Your task to perform on an android device: toggle data saver in the chrome app Image 0: 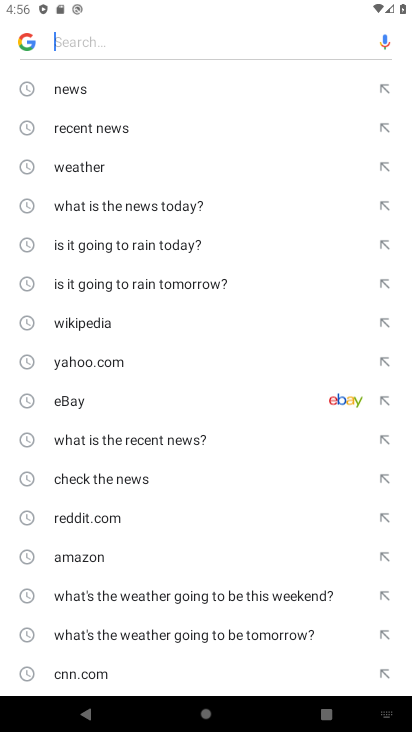
Step 0: press back button
Your task to perform on an android device: toggle data saver in the chrome app Image 1: 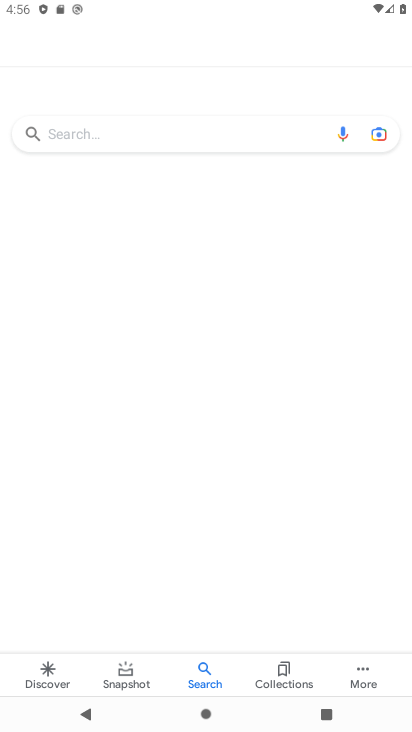
Step 1: press back button
Your task to perform on an android device: toggle data saver in the chrome app Image 2: 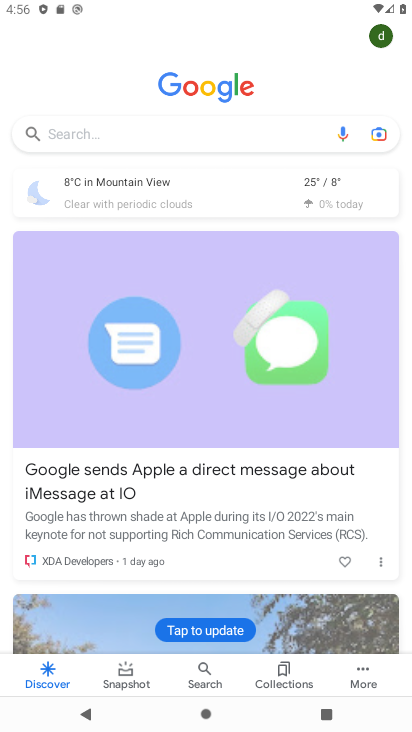
Step 2: press back button
Your task to perform on an android device: toggle data saver in the chrome app Image 3: 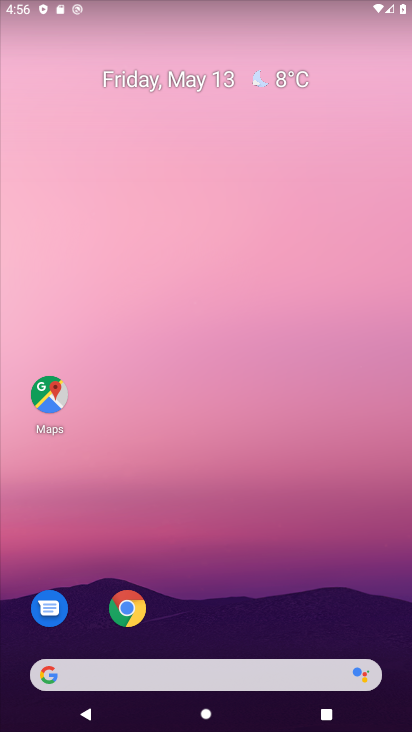
Step 3: click (125, 610)
Your task to perform on an android device: toggle data saver in the chrome app Image 4: 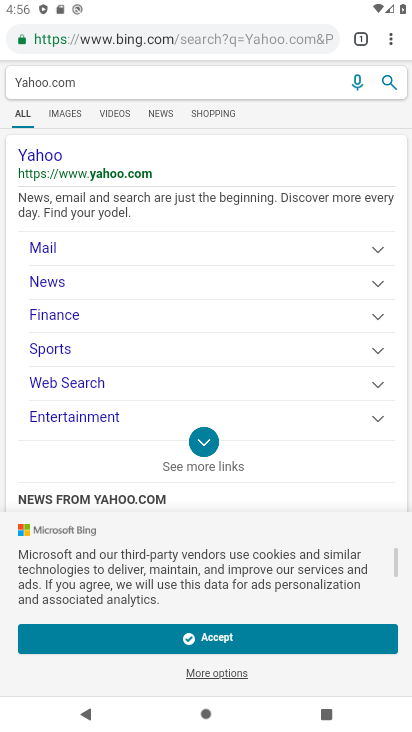
Step 4: click (391, 41)
Your task to perform on an android device: toggle data saver in the chrome app Image 5: 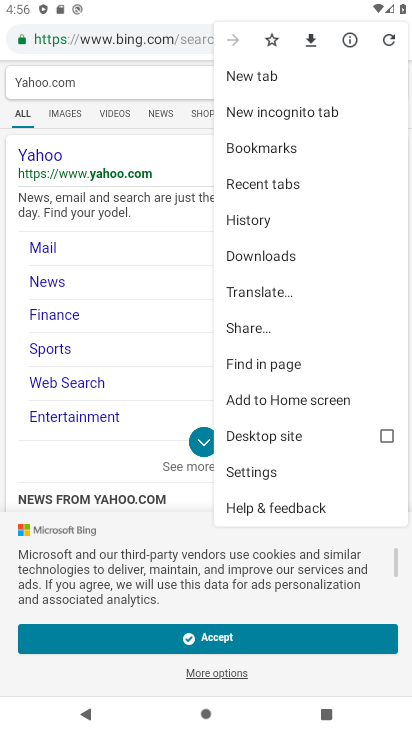
Step 5: click (258, 470)
Your task to perform on an android device: toggle data saver in the chrome app Image 6: 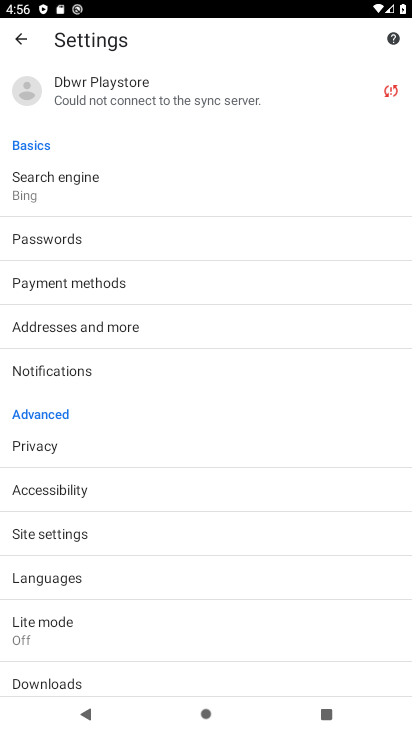
Step 6: click (45, 621)
Your task to perform on an android device: toggle data saver in the chrome app Image 7: 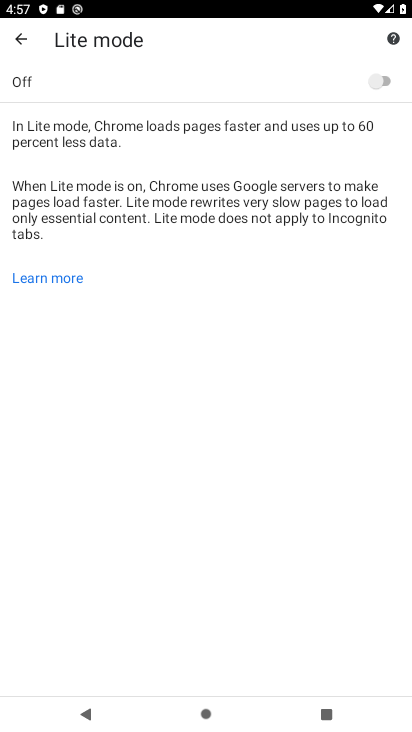
Step 7: click (388, 77)
Your task to perform on an android device: toggle data saver in the chrome app Image 8: 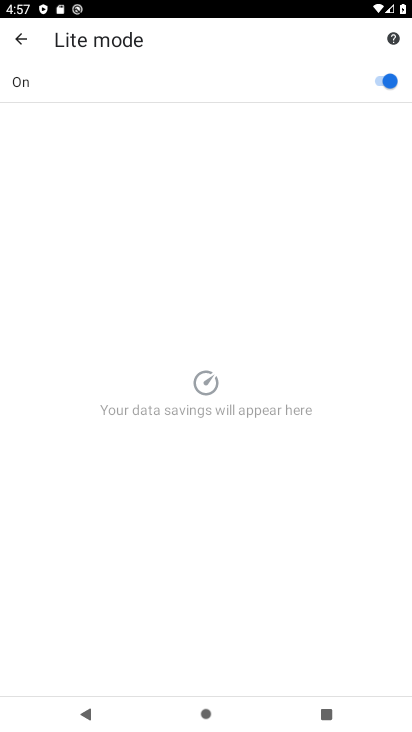
Step 8: task complete